Your task to perform on an android device: Open settings Image 0: 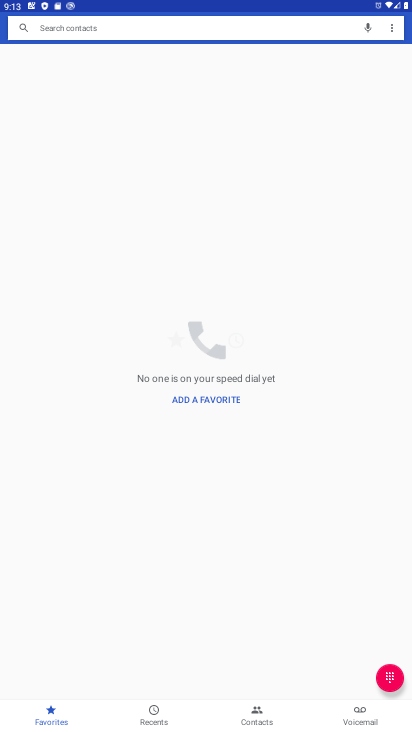
Step 0: press home button
Your task to perform on an android device: Open settings Image 1: 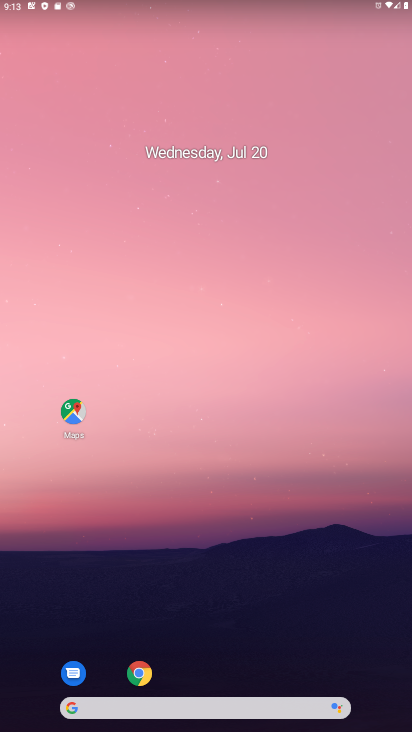
Step 1: drag from (199, 729) to (219, 129)
Your task to perform on an android device: Open settings Image 2: 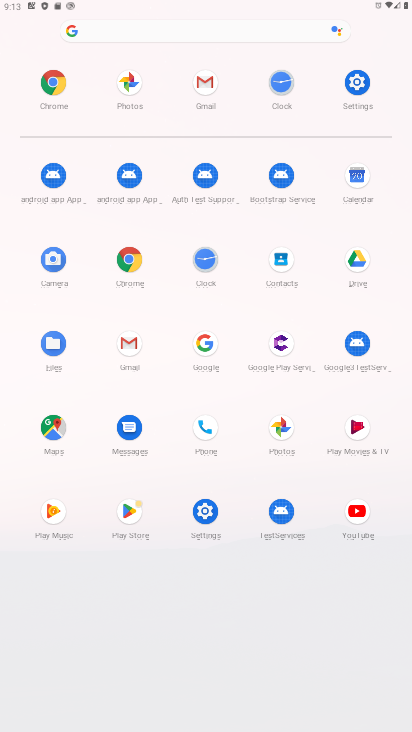
Step 2: click (354, 86)
Your task to perform on an android device: Open settings Image 3: 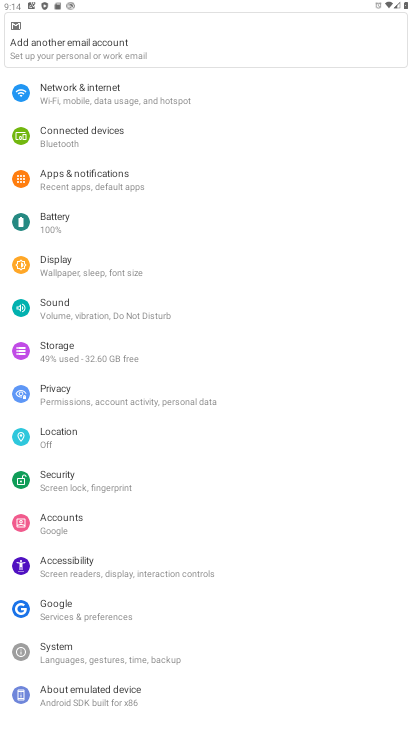
Step 3: task complete